Your task to perform on an android device: see sites visited before in the chrome app Image 0: 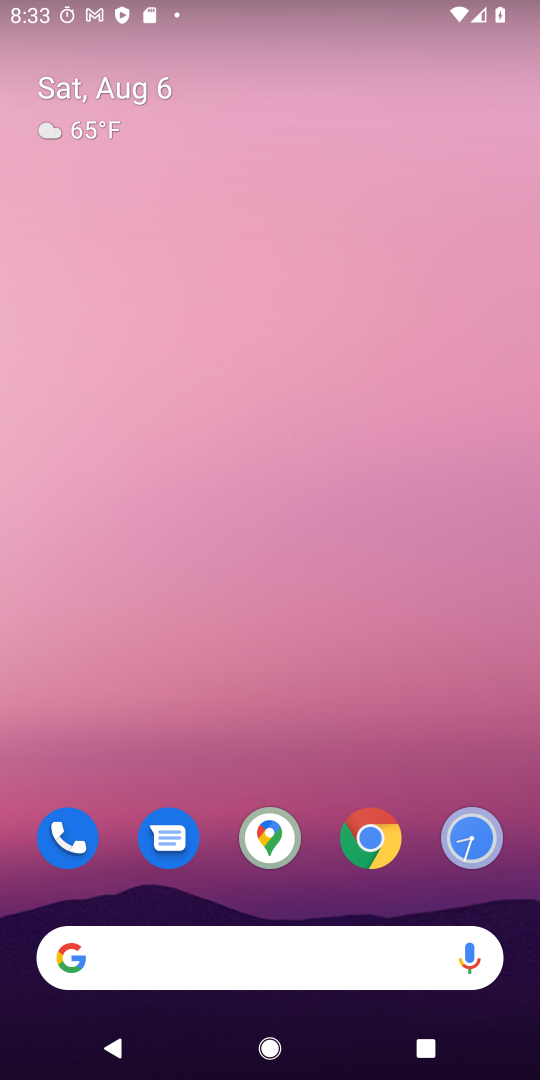
Step 0: click (356, 839)
Your task to perform on an android device: see sites visited before in the chrome app Image 1: 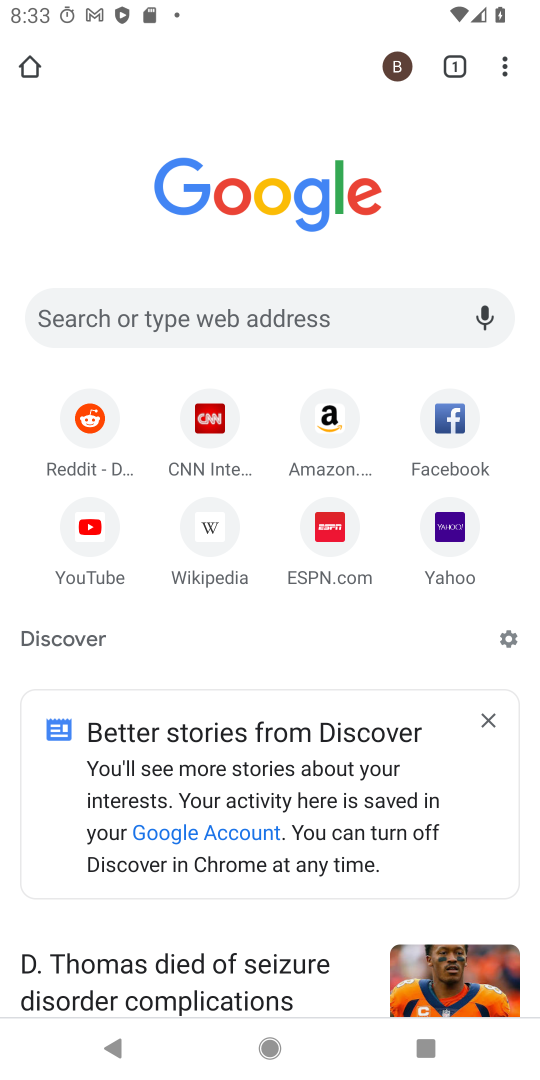
Step 1: click (509, 71)
Your task to perform on an android device: see sites visited before in the chrome app Image 2: 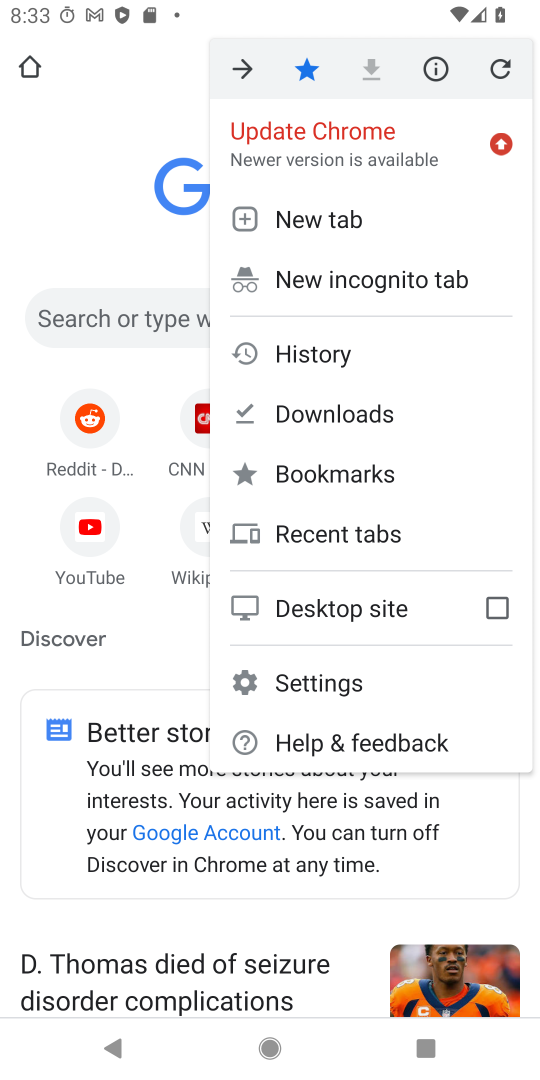
Step 2: click (345, 345)
Your task to perform on an android device: see sites visited before in the chrome app Image 3: 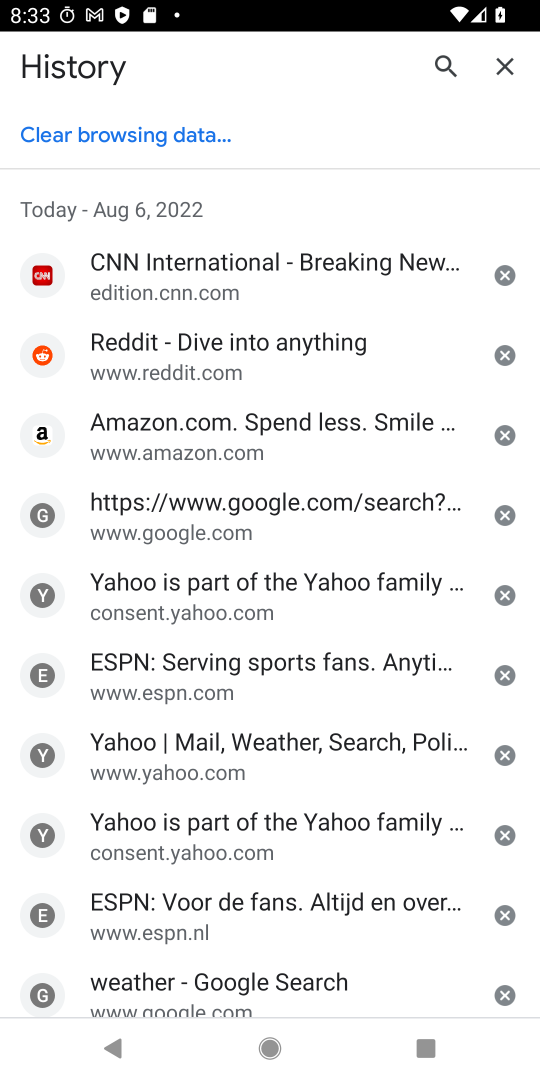
Step 3: task complete